Your task to perform on an android device: Open privacy settings Image 0: 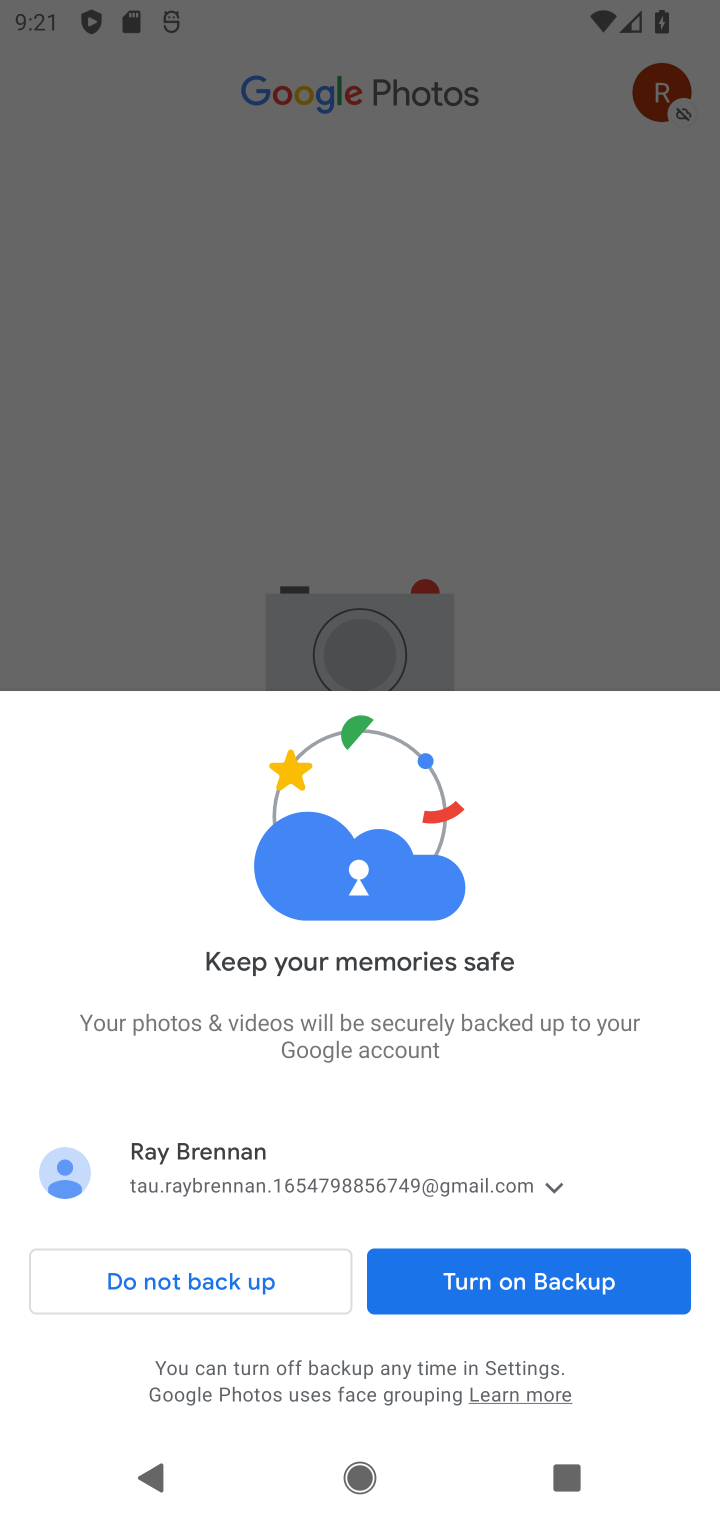
Step 0: press home button
Your task to perform on an android device: Open privacy settings Image 1: 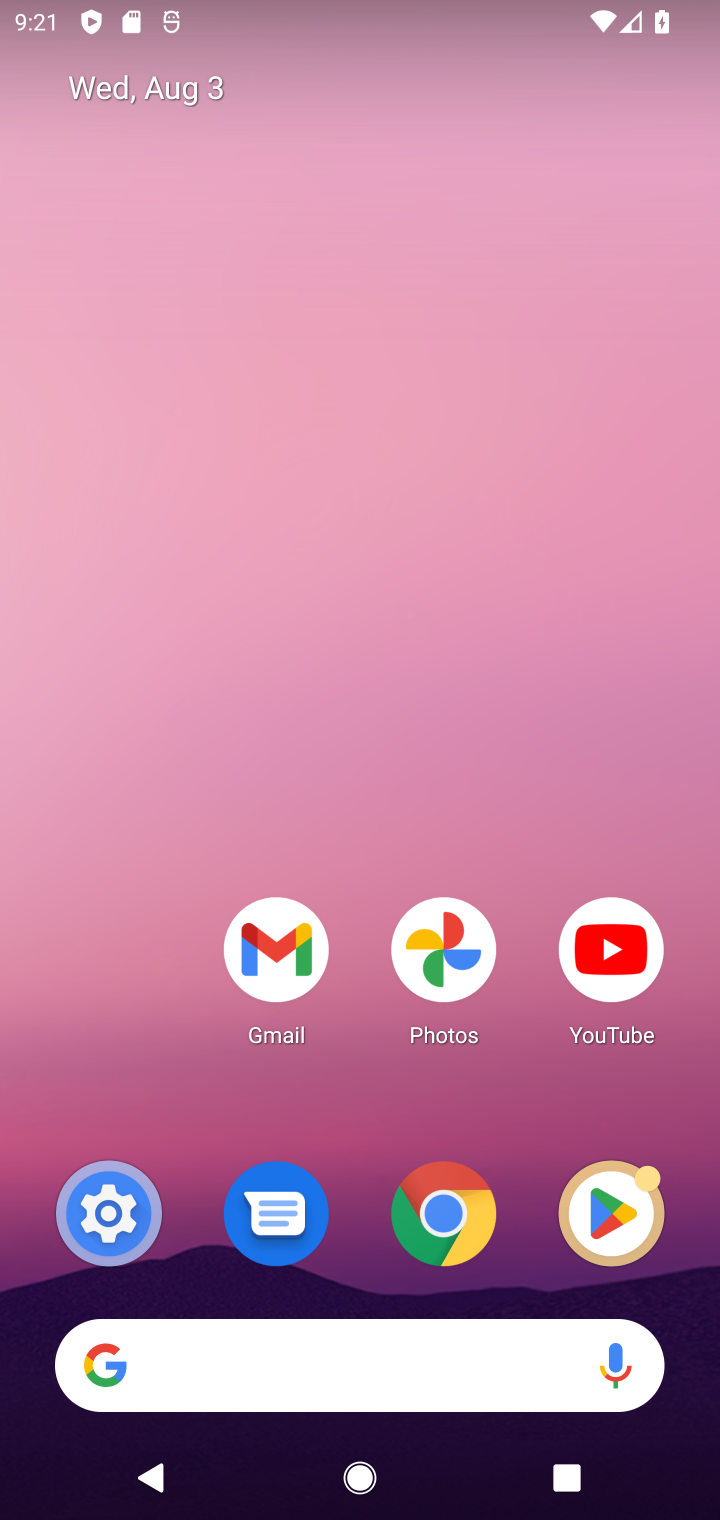
Step 1: click (112, 1196)
Your task to perform on an android device: Open privacy settings Image 2: 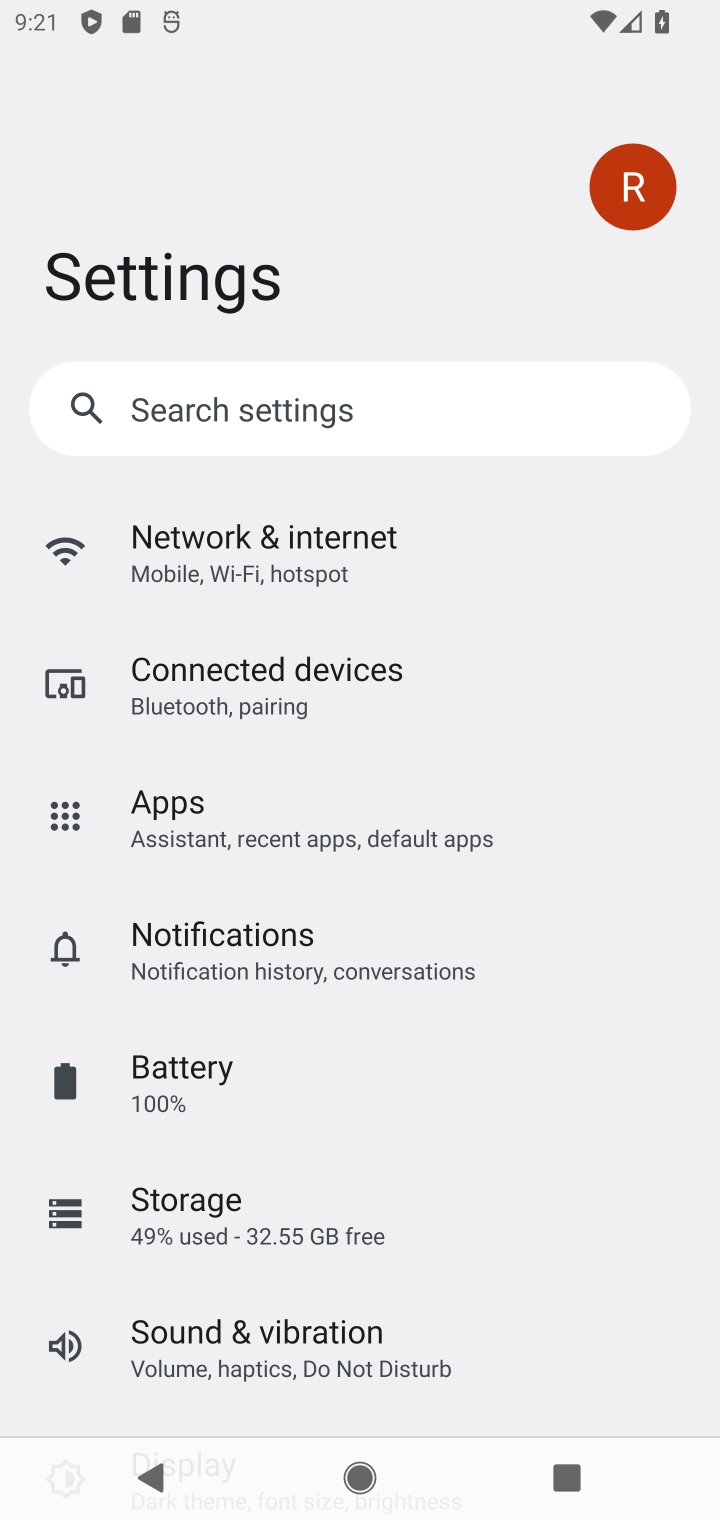
Step 2: drag from (355, 1147) to (298, 473)
Your task to perform on an android device: Open privacy settings Image 3: 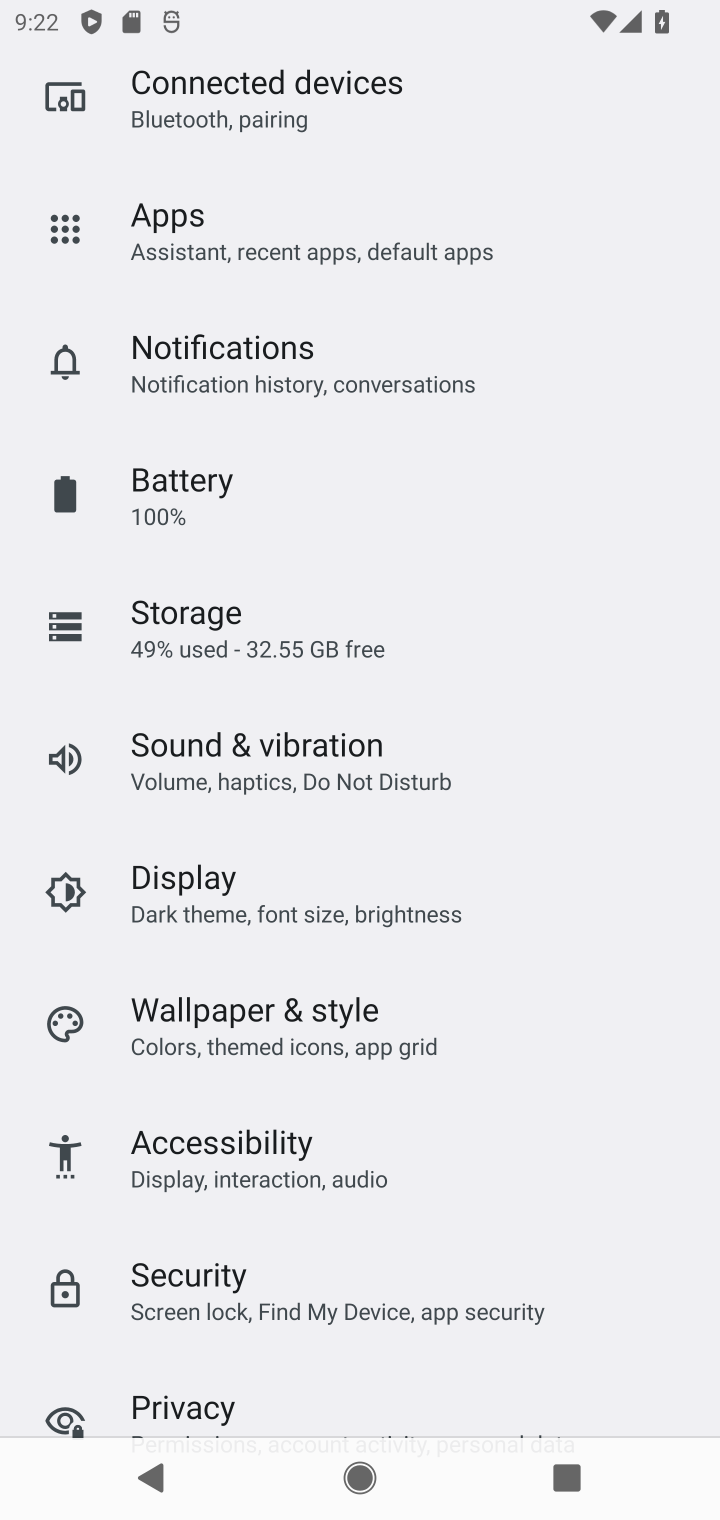
Step 3: drag from (397, 1254) to (316, 458)
Your task to perform on an android device: Open privacy settings Image 4: 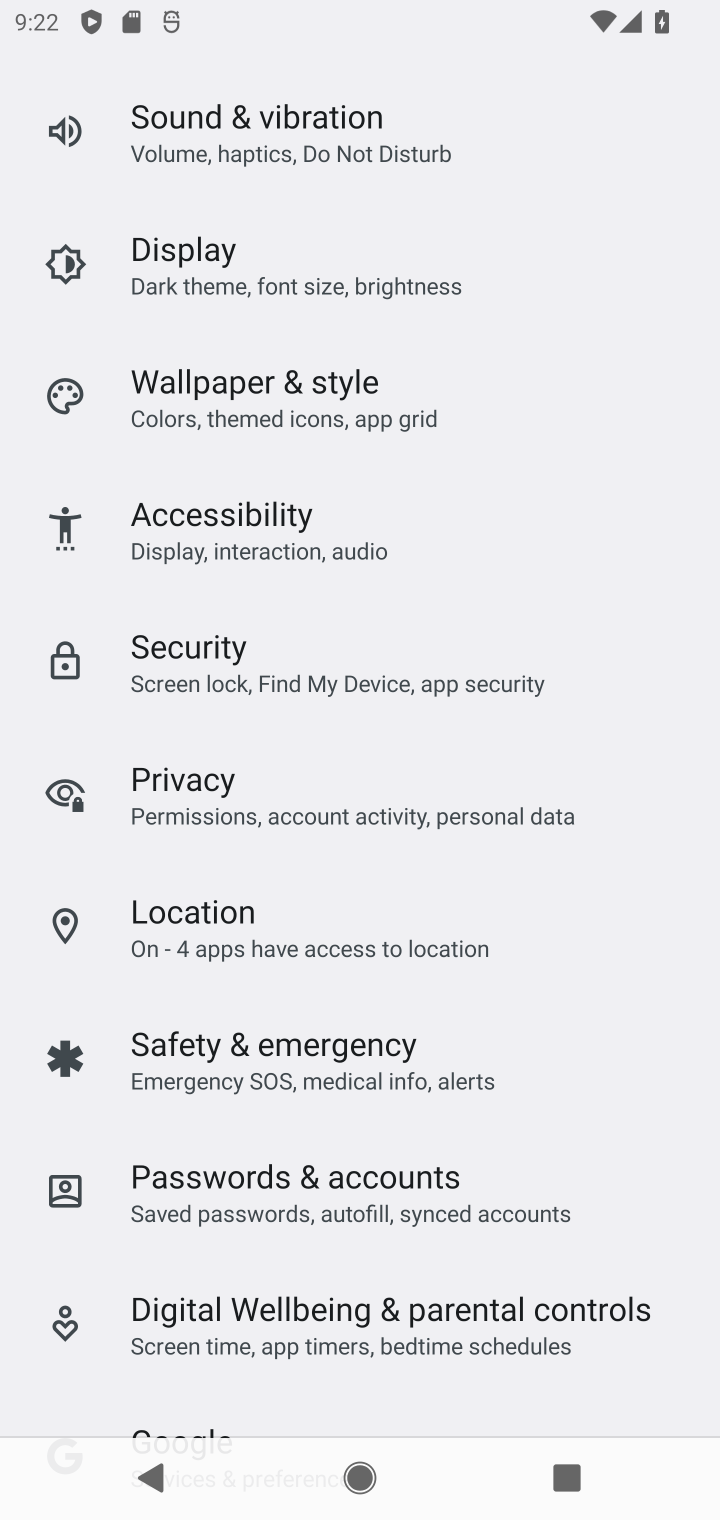
Step 4: click (246, 789)
Your task to perform on an android device: Open privacy settings Image 5: 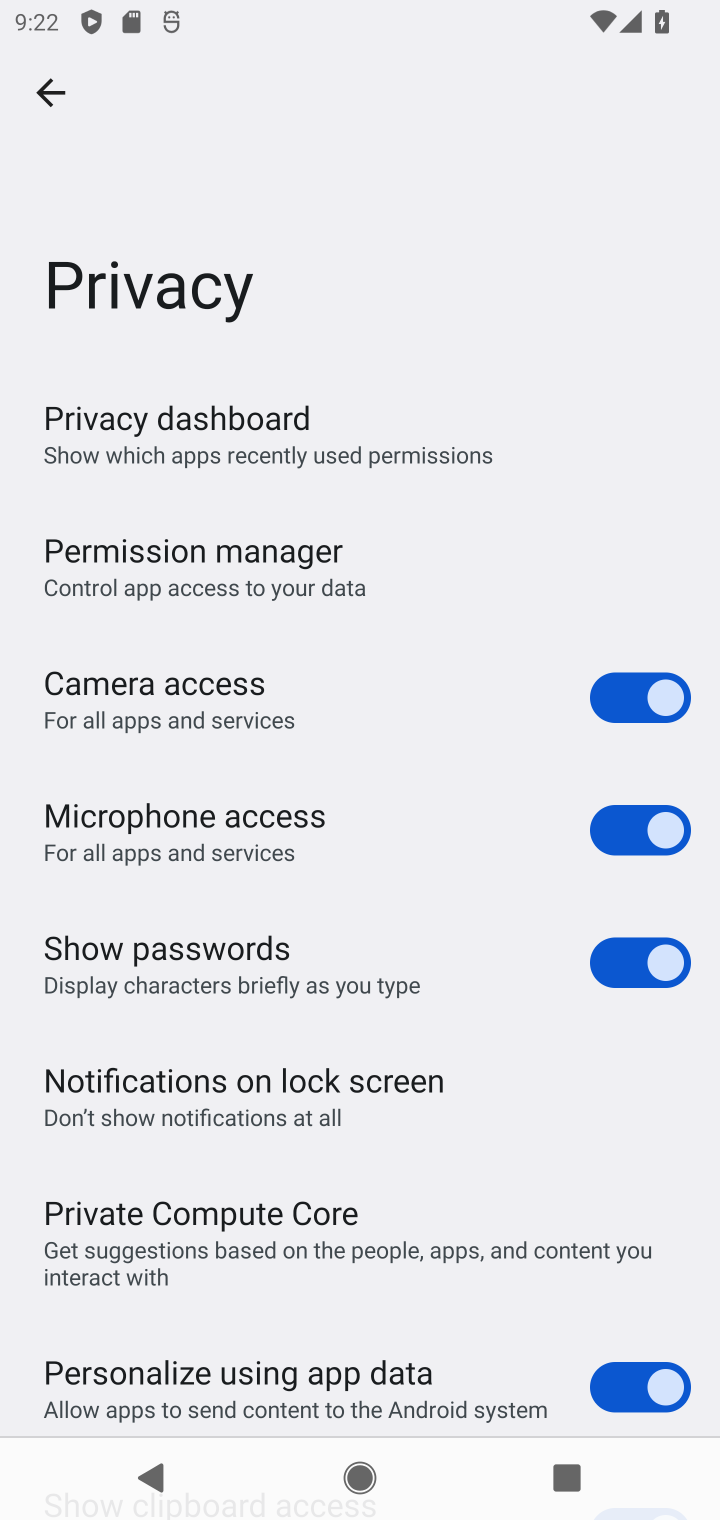
Step 5: task complete